Your task to perform on an android device: What is the news today? Image 0: 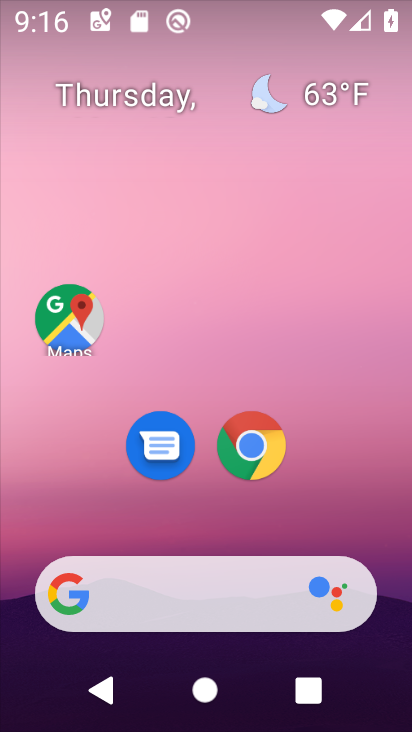
Step 0: drag from (279, 540) to (262, 199)
Your task to perform on an android device: What is the news today? Image 1: 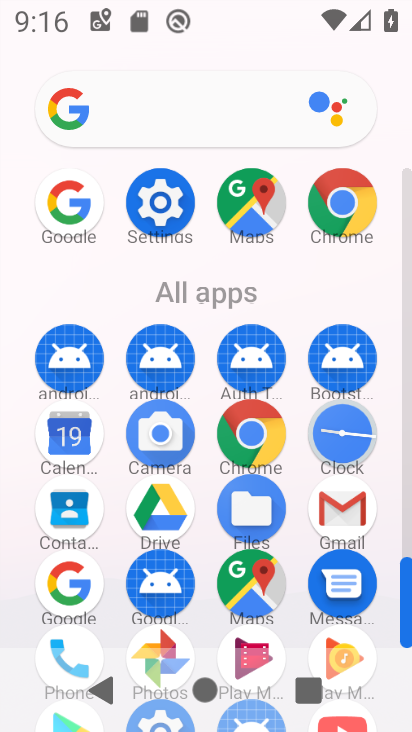
Step 1: click (80, 596)
Your task to perform on an android device: What is the news today? Image 2: 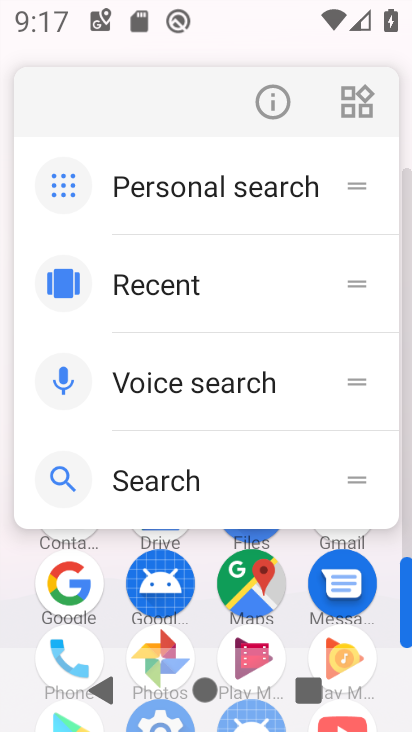
Step 2: click (275, 106)
Your task to perform on an android device: What is the news today? Image 3: 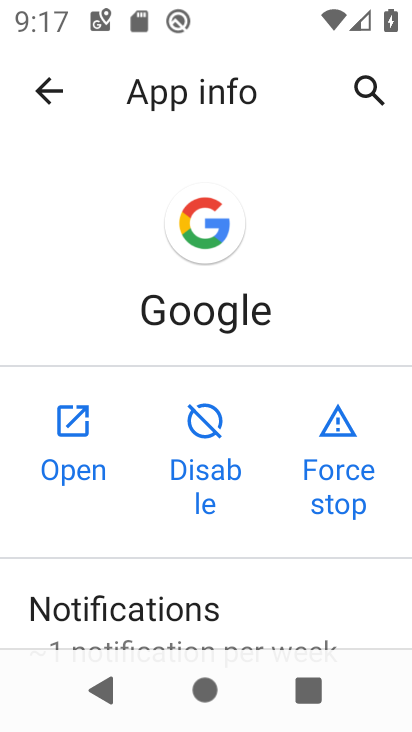
Step 3: click (76, 412)
Your task to perform on an android device: What is the news today? Image 4: 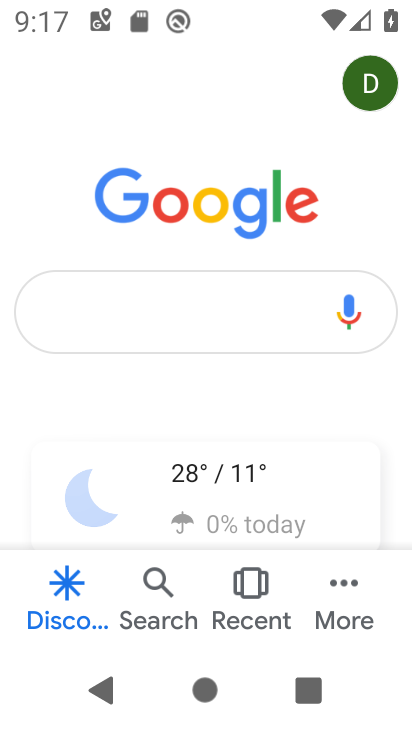
Step 4: task complete